Your task to perform on an android device: Go to settings Image 0: 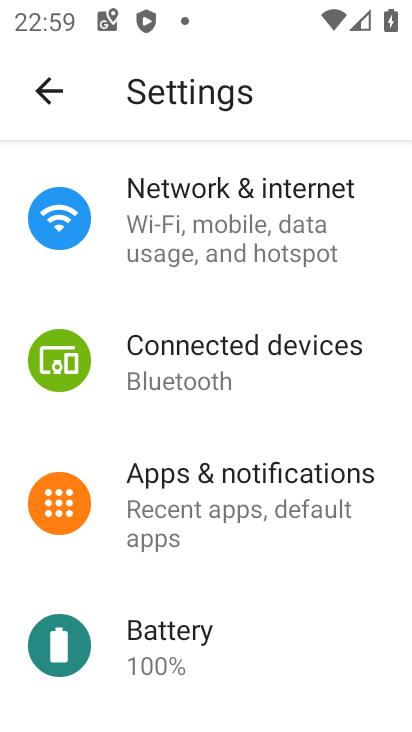
Step 0: task complete